Your task to perform on an android device: Search for vegetarian restaurants on Maps Image 0: 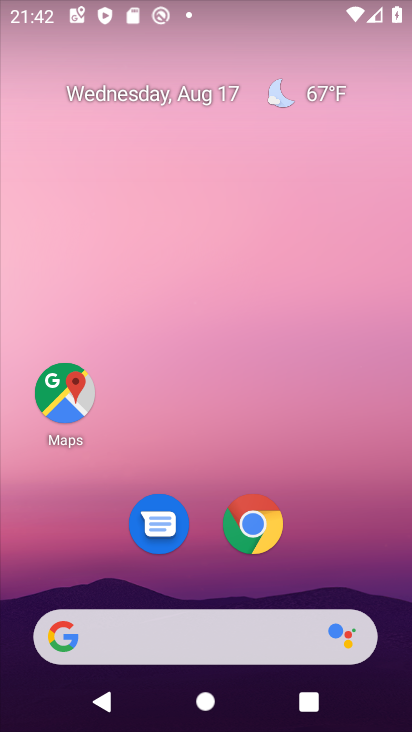
Step 0: click (73, 401)
Your task to perform on an android device: Search for vegetarian restaurants on Maps Image 1: 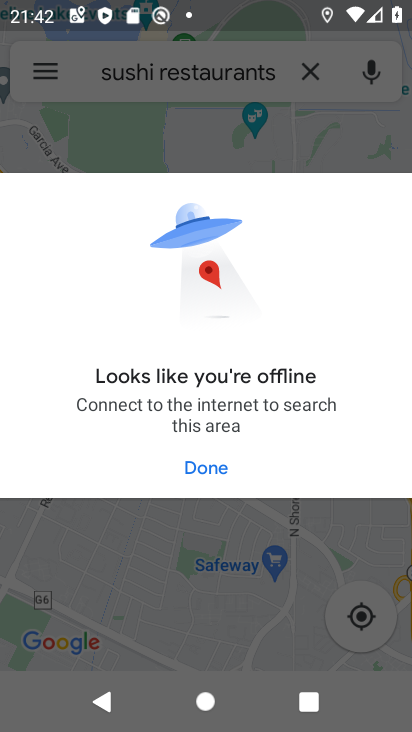
Step 1: click (200, 463)
Your task to perform on an android device: Search for vegetarian restaurants on Maps Image 2: 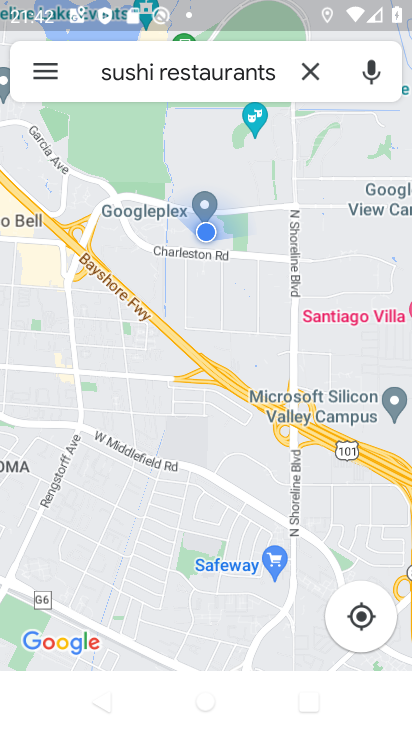
Step 2: click (309, 67)
Your task to perform on an android device: Search for vegetarian restaurants on Maps Image 3: 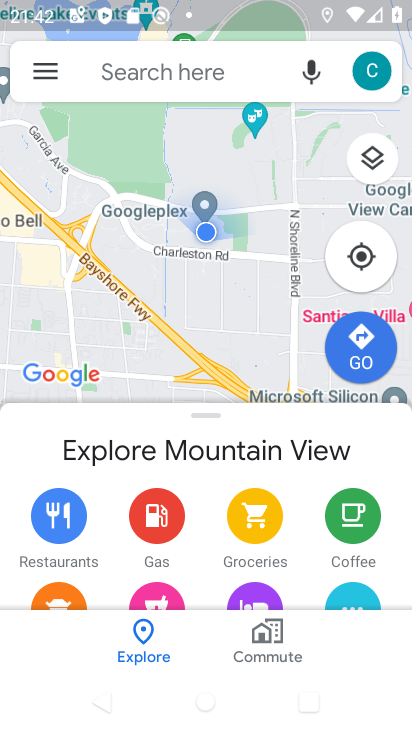
Step 3: click (201, 79)
Your task to perform on an android device: Search for vegetarian restaurants on Maps Image 4: 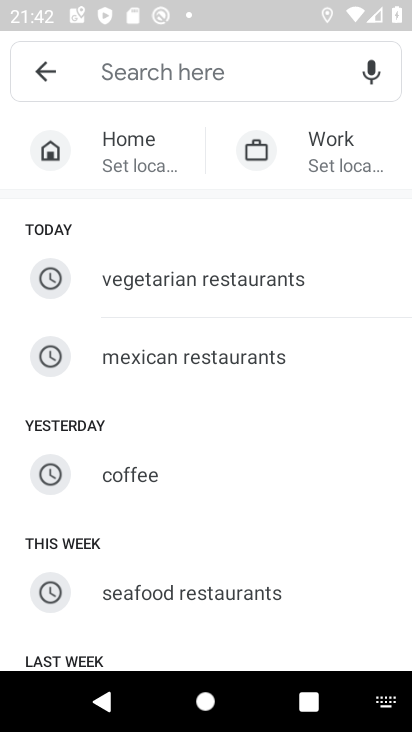
Step 4: click (214, 273)
Your task to perform on an android device: Search for vegetarian restaurants on Maps Image 5: 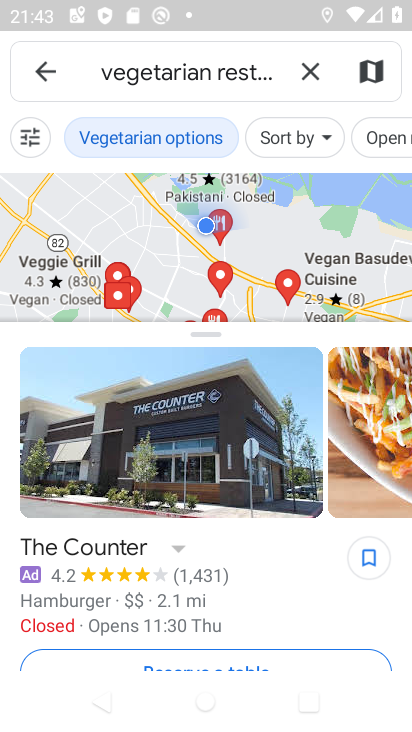
Step 5: task complete